Your task to perform on an android device: Open my contact list Image 0: 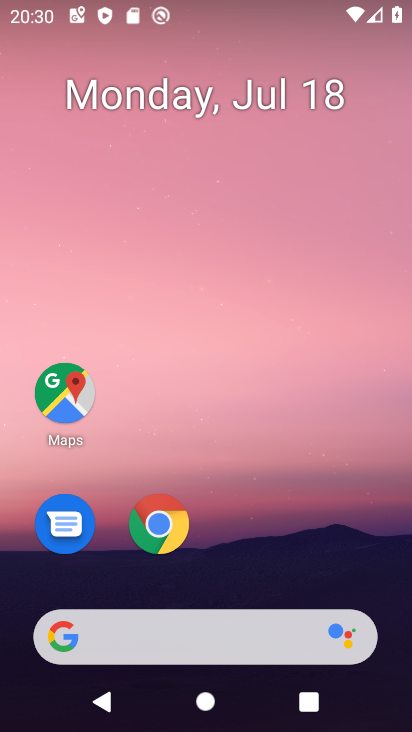
Step 0: drag from (254, 522) to (235, 43)
Your task to perform on an android device: Open my contact list Image 1: 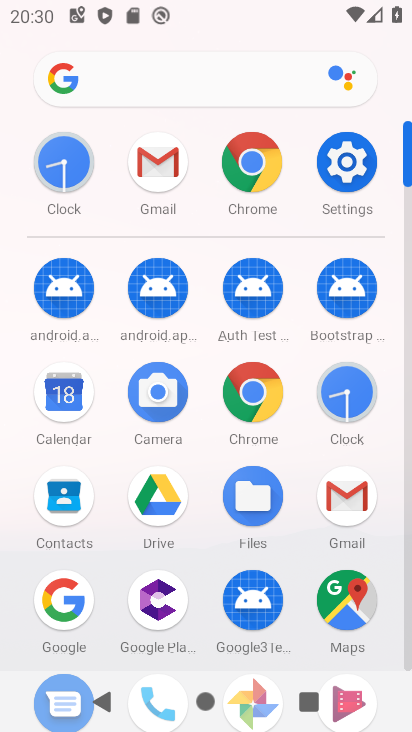
Step 1: click (77, 505)
Your task to perform on an android device: Open my contact list Image 2: 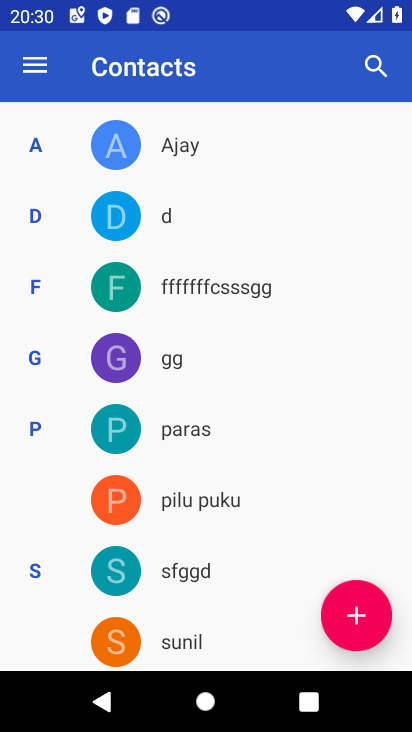
Step 2: task complete